Your task to perform on an android device: Go to Reddit.com Image 0: 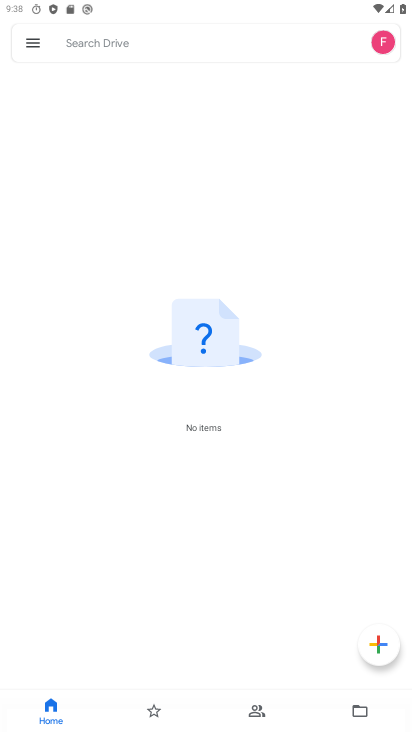
Step 0: press home button
Your task to perform on an android device: Go to Reddit.com Image 1: 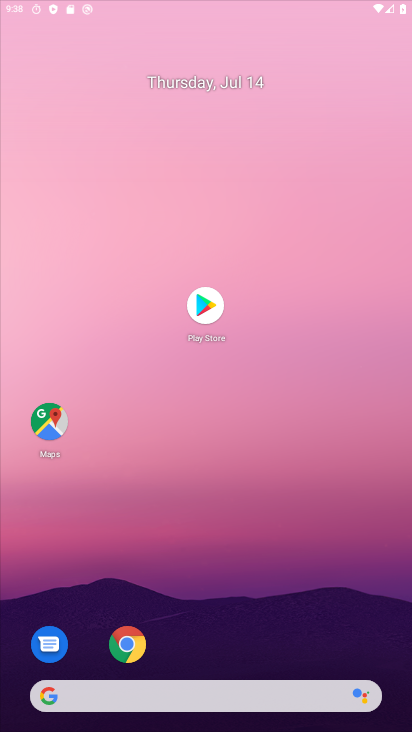
Step 1: drag from (219, 626) to (290, 157)
Your task to perform on an android device: Go to Reddit.com Image 2: 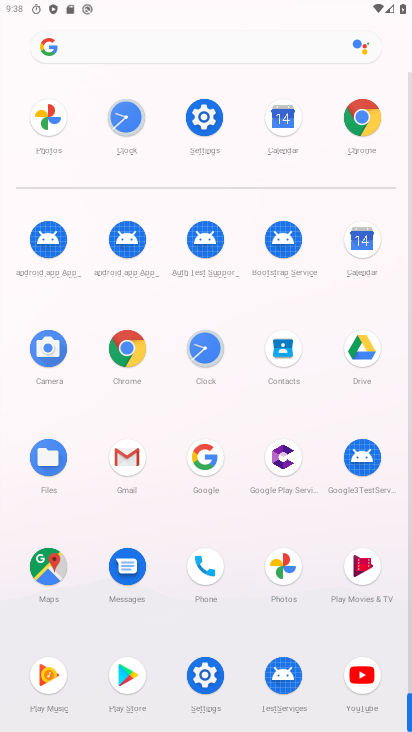
Step 2: click (152, 55)
Your task to perform on an android device: Go to Reddit.com Image 3: 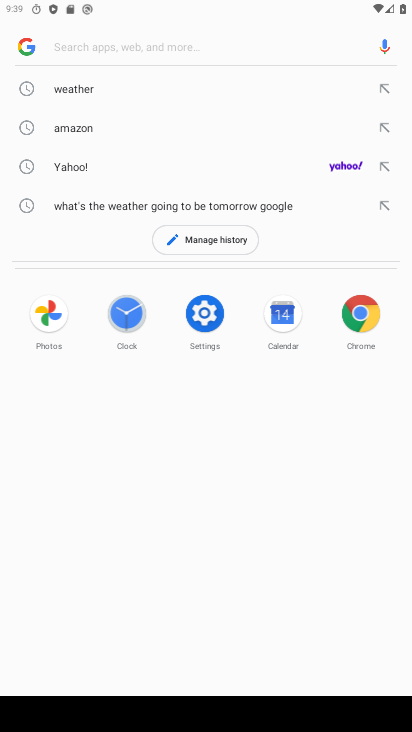
Step 3: click (116, 49)
Your task to perform on an android device: Go to Reddit.com Image 4: 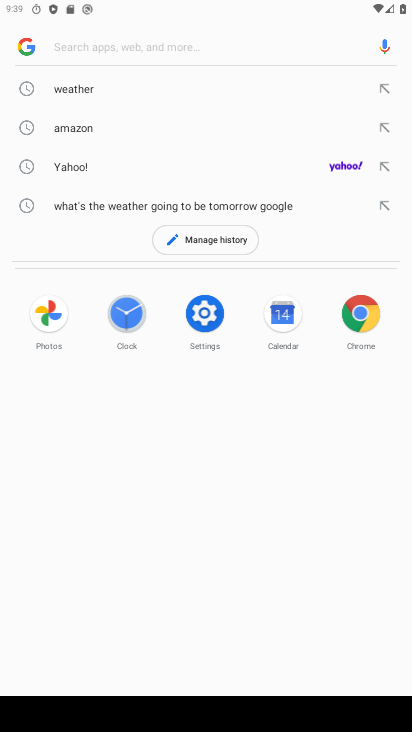
Step 4: type "Reddit.com"
Your task to perform on an android device: Go to Reddit.com Image 5: 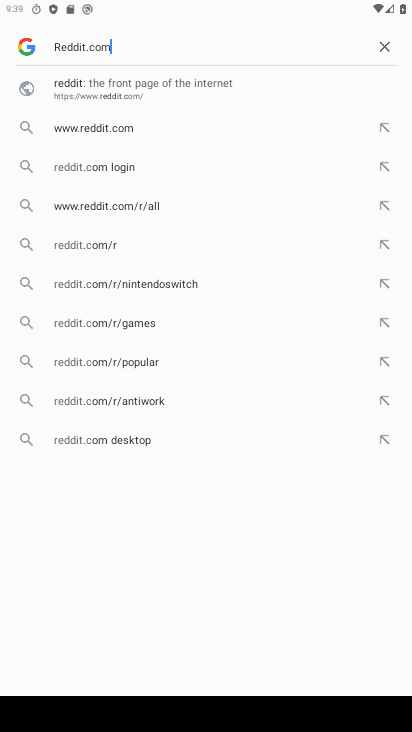
Step 5: type ""
Your task to perform on an android device: Go to Reddit.com Image 6: 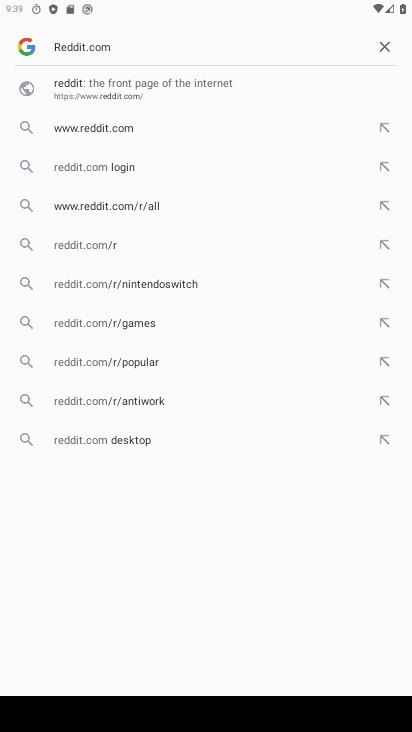
Step 6: click (105, 91)
Your task to perform on an android device: Go to Reddit.com Image 7: 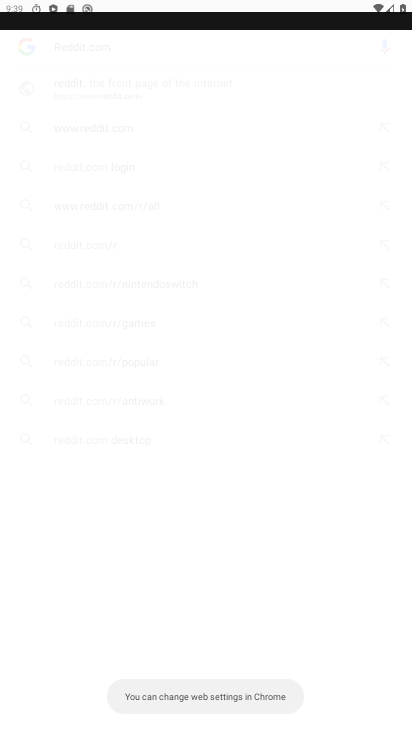
Step 7: click (272, 259)
Your task to perform on an android device: Go to Reddit.com Image 8: 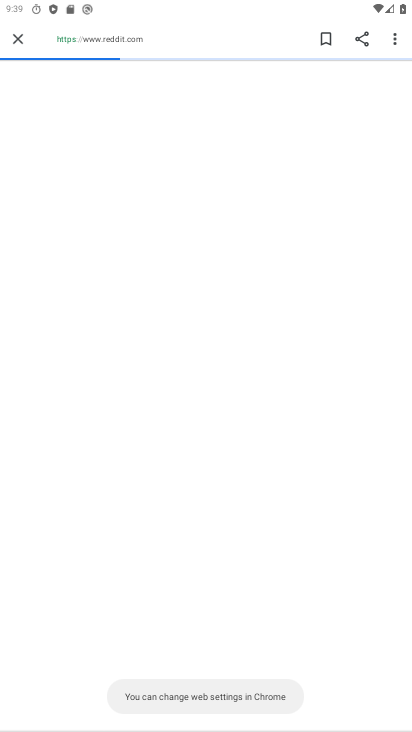
Step 8: task complete